Your task to perform on an android device: Open Youtube and go to the subscriptions tab Image 0: 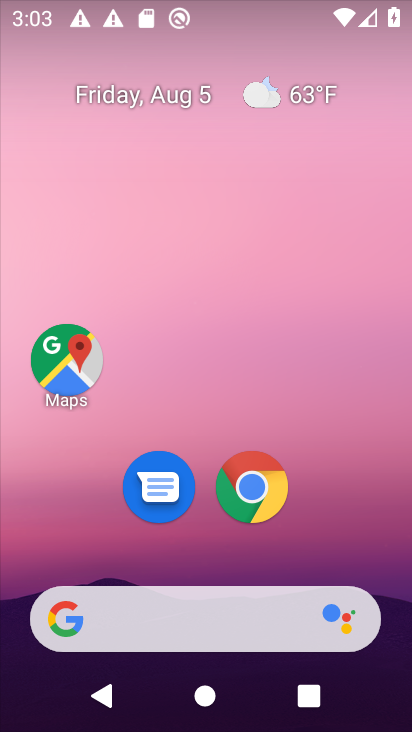
Step 0: drag from (229, 549) to (230, 197)
Your task to perform on an android device: Open Youtube and go to the subscriptions tab Image 1: 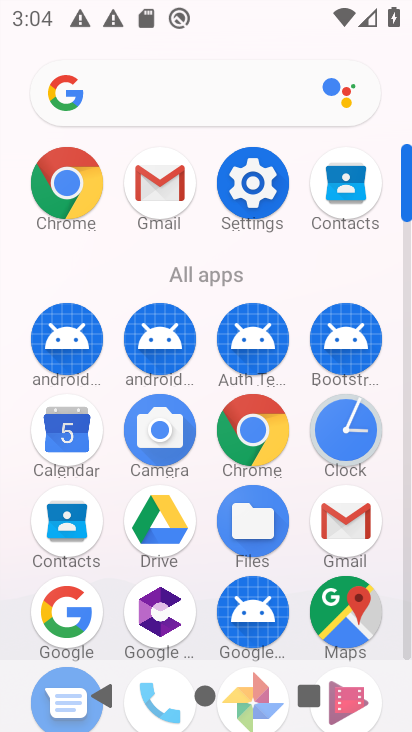
Step 1: drag from (303, 631) to (317, 181)
Your task to perform on an android device: Open Youtube and go to the subscriptions tab Image 2: 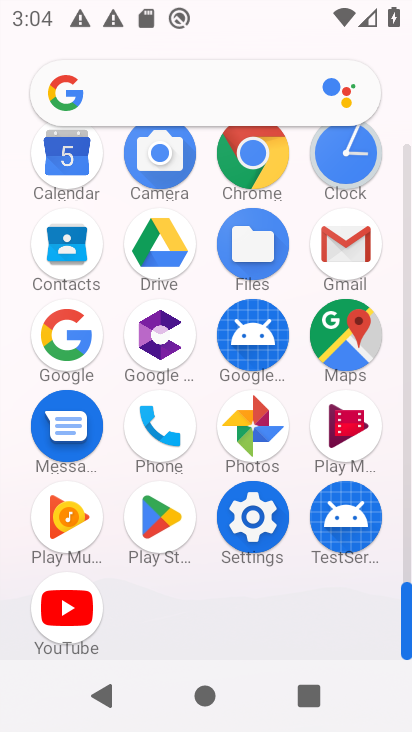
Step 2: click (51, 608)
Your task to perform on an android device: Open Youtube and go to the subscriptions tab Image 3: 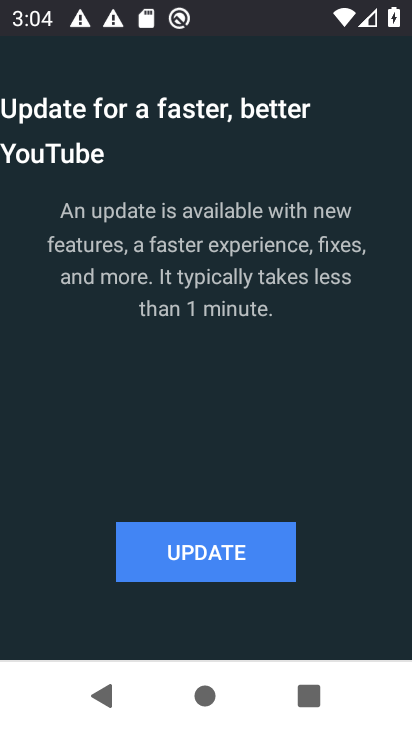
Step 3: task complete